Your task to perform on an android device: delete browsing data in the chrome app Image 0: 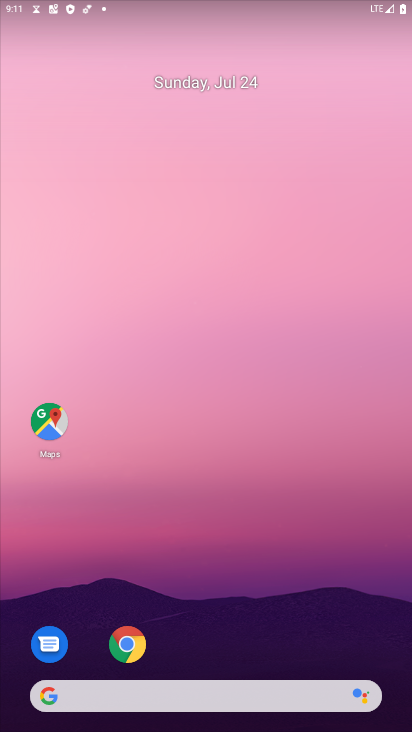
Step 0: drag from (222, 606) to (125, 30)
Your task to perform on an android device: delete browsing data in the chrome app Image 1: 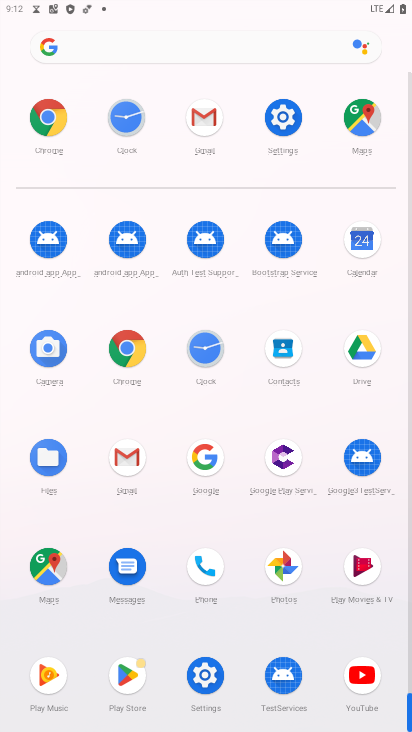
Step 1: click (124, 348)
Your task to perform on an android device: delete browsing data in the chrome app Image 2: 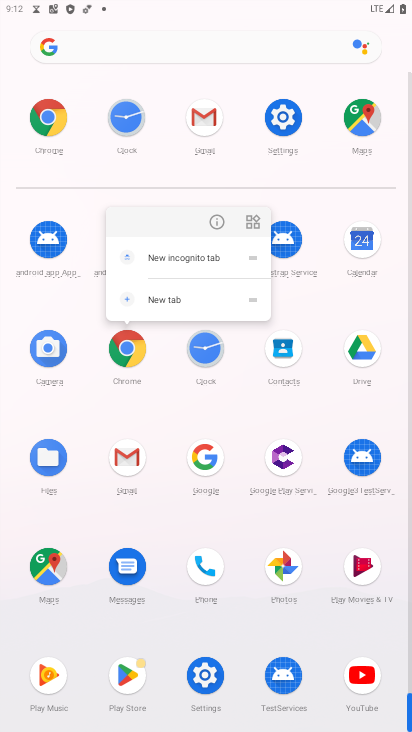
Step 2: click (129, 346)
Your task to perform on an android device: delete browsing data in the chrome app Image 3: 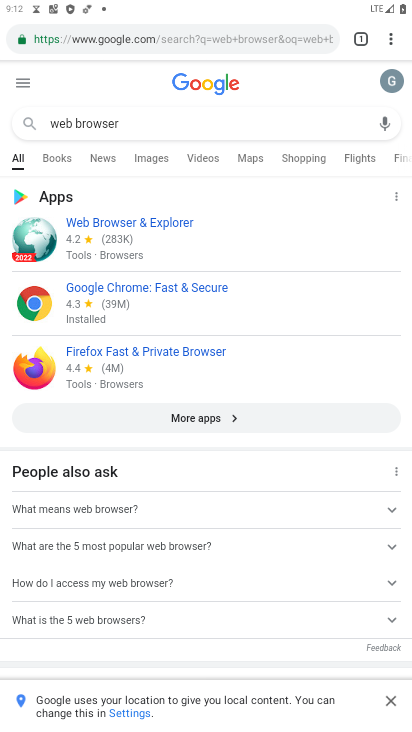
Step 3: drag from (391, 38) to (257, 484)
Your task to perform on an android device: delete browsing data in the chrome app Image 4: 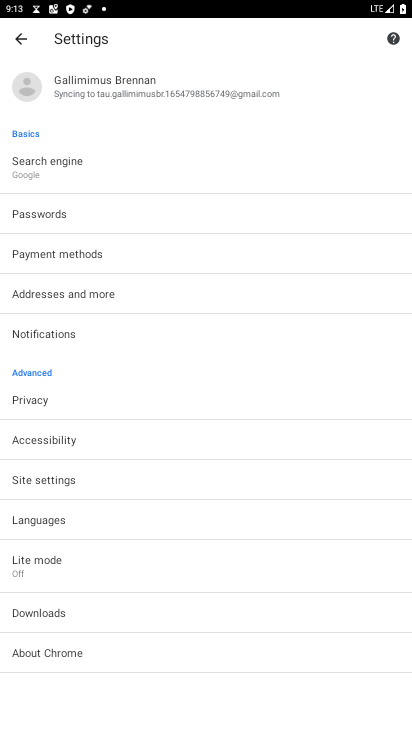
Step 4: click (24, 392)
Your task to perform on an android device: delete browsing data in the chrome app Image 5: 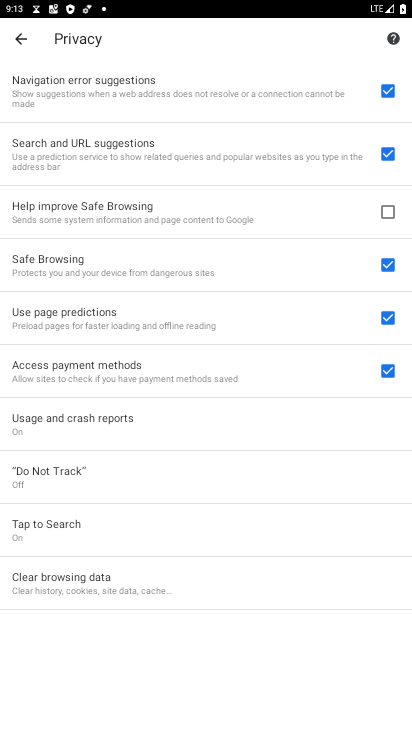
Step 5: click (149, 583)
Your task to perform on an android device: delete browsing data in the chrome app Image 6: 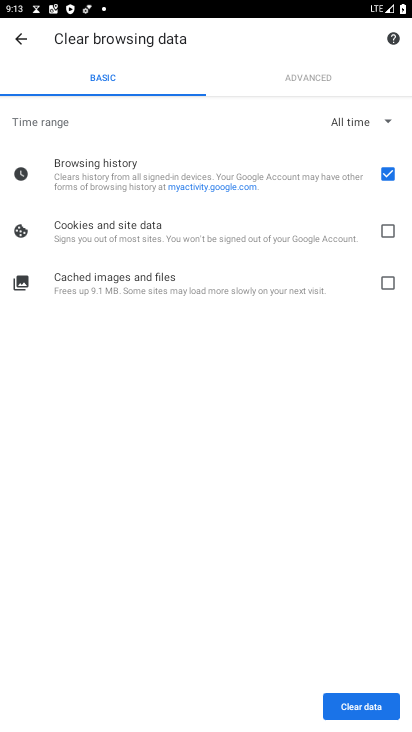
Step 6: click (342, 706)
Your task to perform on an android device: delete browsing data in the chrome app Image 7: 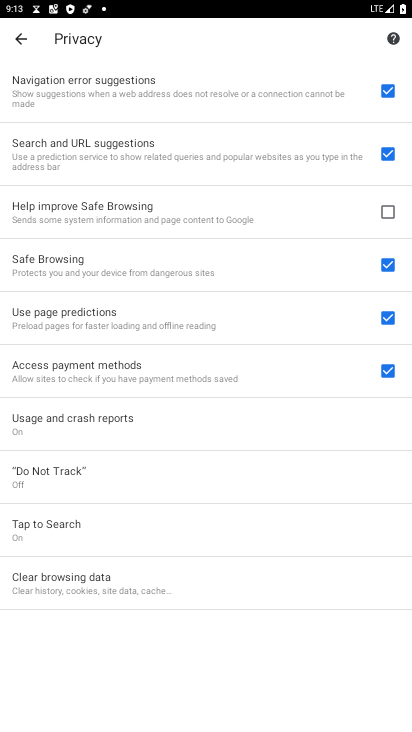
Step 7: task complete